Your task to perform on an android device: Search for Mexican restaurants on Maps Image 0: 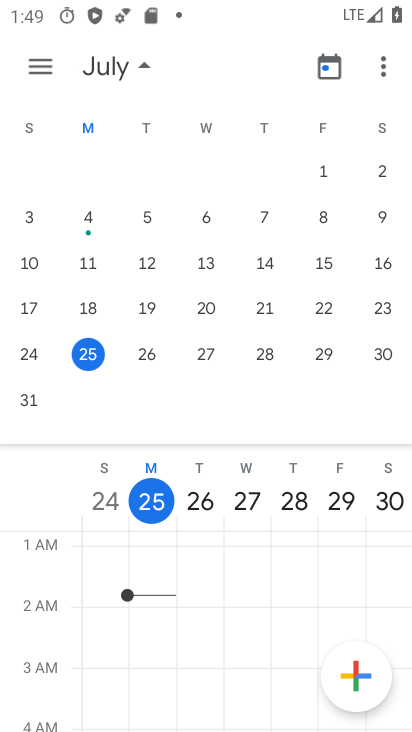
Step 0: press home button
Your task to perform on an android device: Search for Mexican restaurants on Maps Image 1: 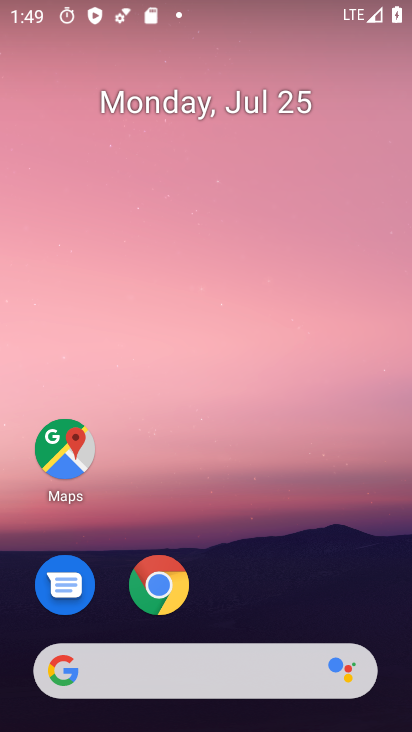
Step 1: click (63, 452)
Your task to perform on an android device: Search for Mexican restaurants on Maps Image 2: 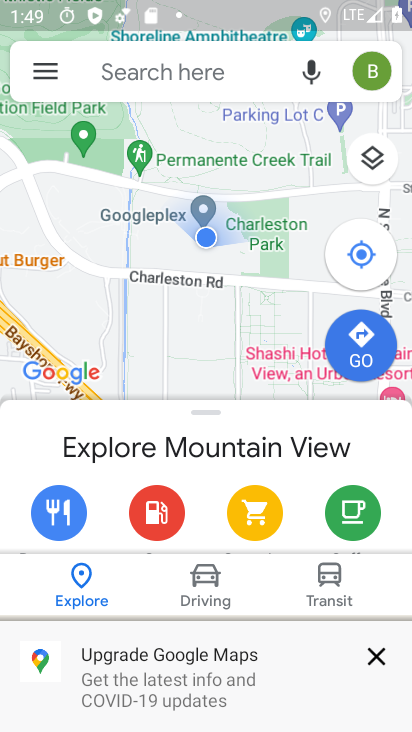
Step 2: click (175, 74)
Your task to perform on an android device: Search for Mexican restaurants on Maps Image 3: 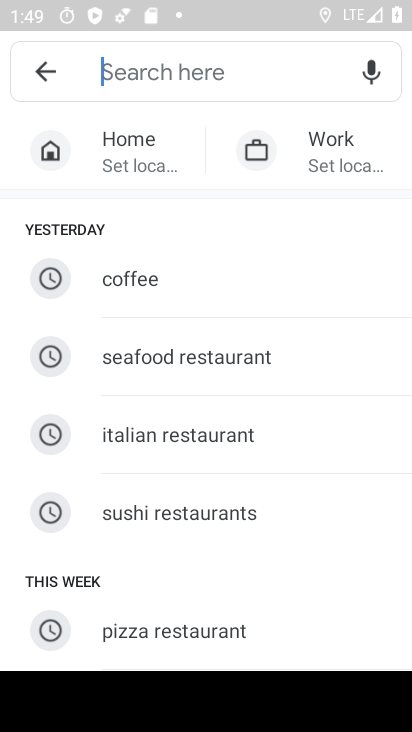
Step 3: drag from (178, 271) to (171, 190)
Your task to perform on an android device: Search for Mexican restaurants on Maps Image 4: 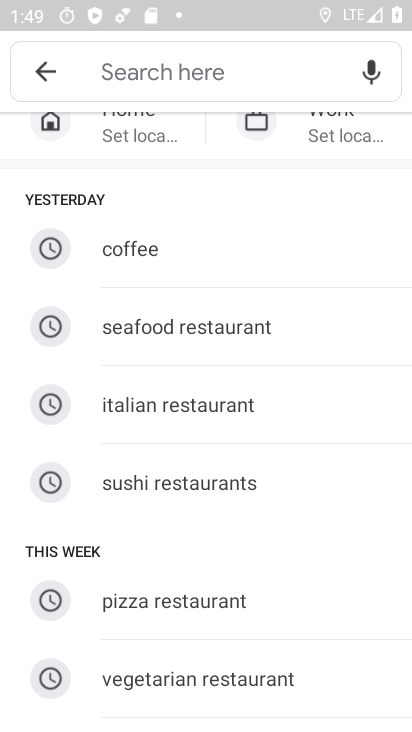
Step 4: drag from (161, 644) to (126, 230)
Your task to perform on an android device: Search for Mexican restaurants on Maps Image 5: 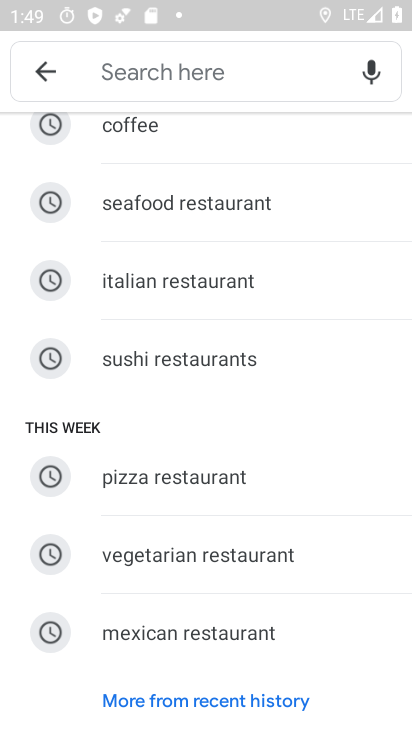
Step 5: click (142, 631)
Your task to perform on an android device: Search for Mexican restaurants on Maps Image 6: 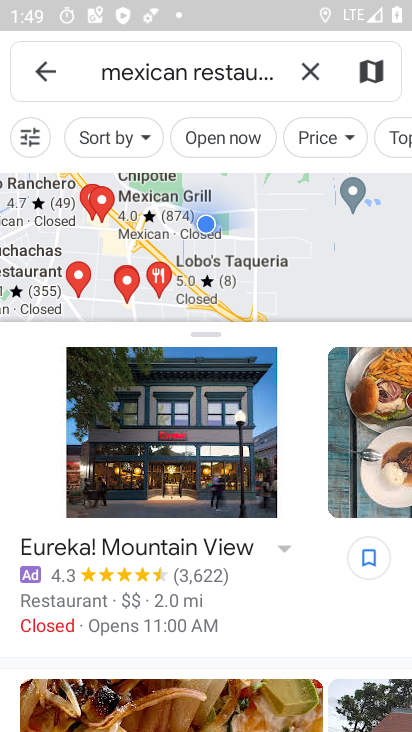
Step 6: task complete